Your task to perform on an android device: How much does a3 bedroom apartment rent for in Portland? Image 0: 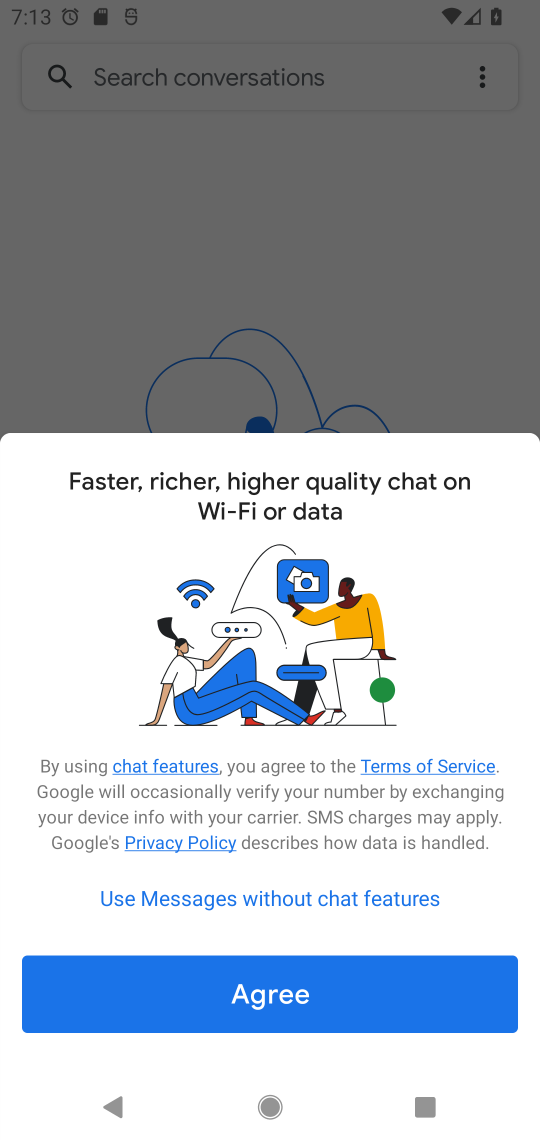
Step 0: press home button
Your task to perform on an android device: How much does a3 bedroom apartment rent for in Portland? Image 1: 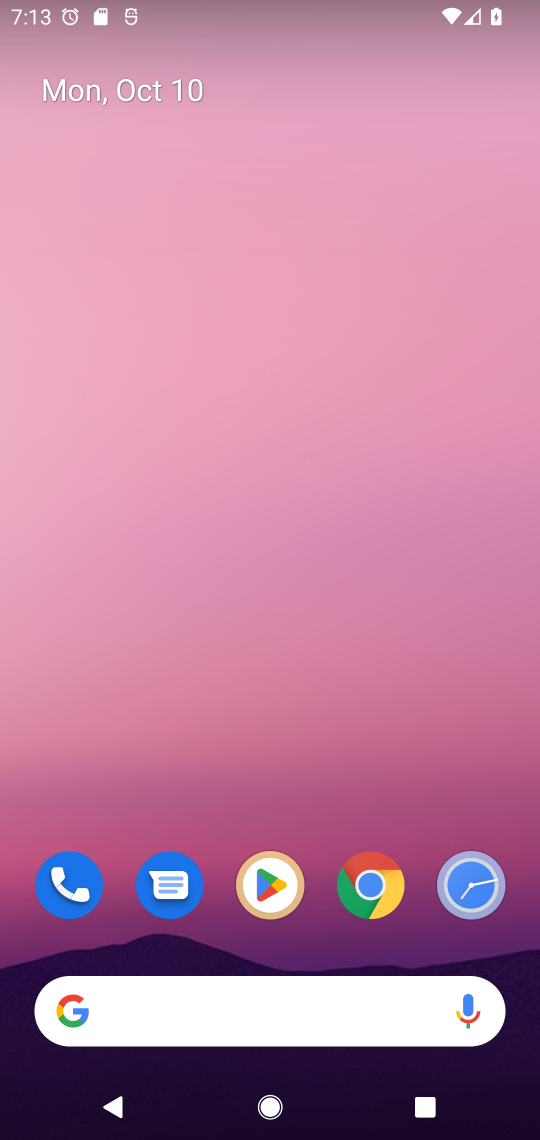
Step 1: click (376, 897)
Your task to perform on an android device: How much does a3 bedroom apartment rent for in Portland? Image 2: 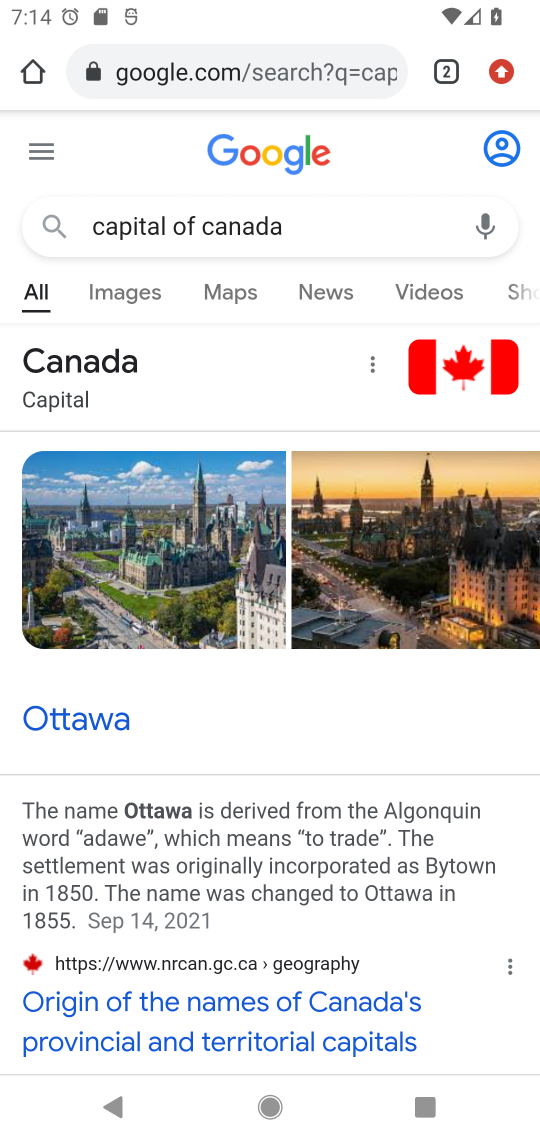
Step 2: click (154, 70)
Your task to perform on an android device: How much does a3 bedroom apartment rent for in Portland? Image 3: 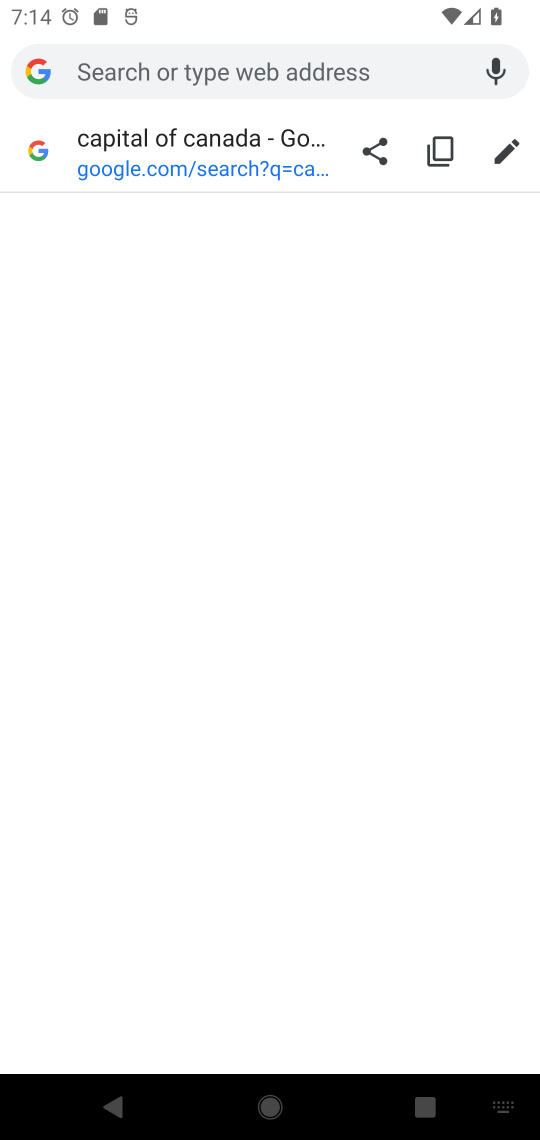
Step 3: type "3 bedroom apartment rent for in Portland"
Your task to perform on an android device: How much does a3 bedroom apartment rent for in Portland? Image 4: 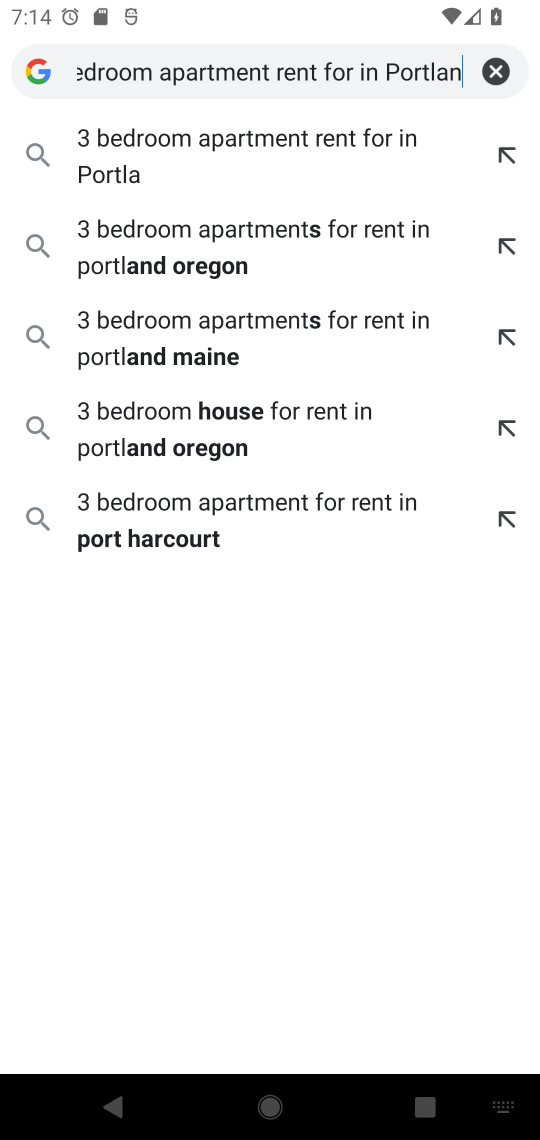
Step 4: type ""
Your task to perform on an android device: How much does a3 bedroom apartment rent for in Portland? Image 5: 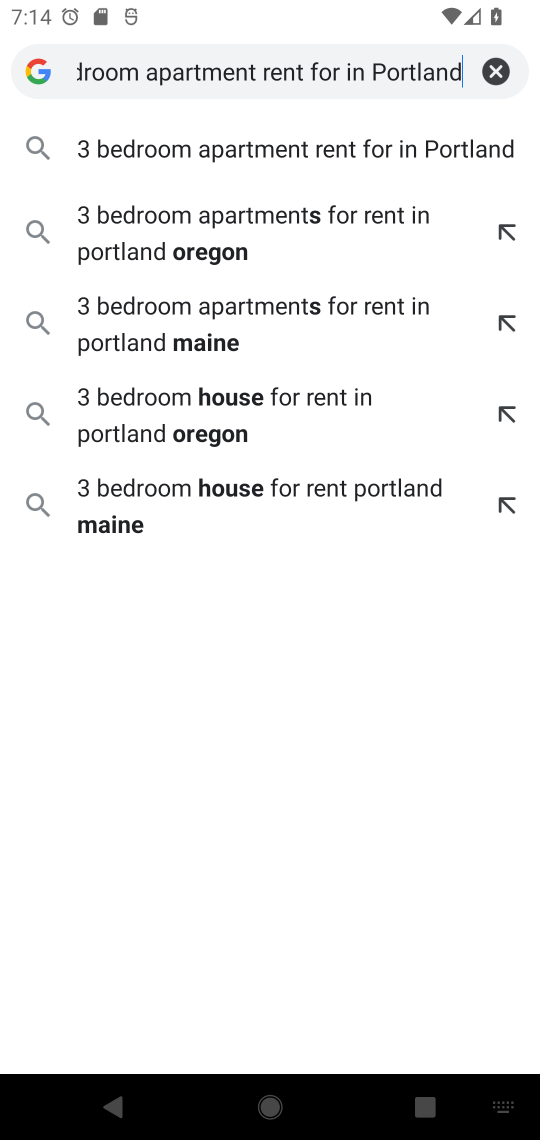
Step 5: click (237, 141)
Your task to perform on an android device: How much does a3 bedroom apartment rent for in Portland? Image 6: 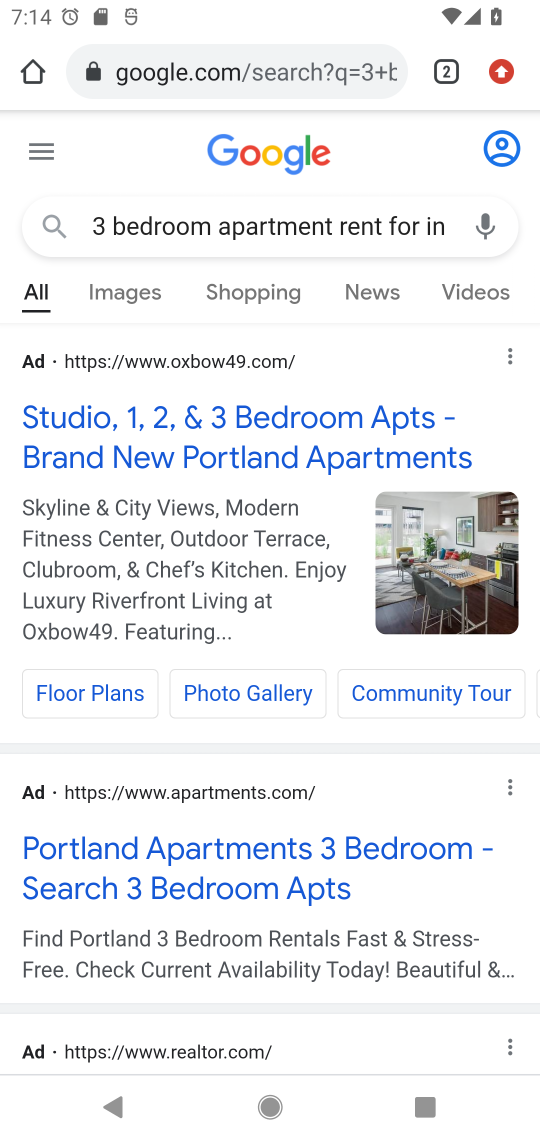
Step 6: click (203, 850)
Your task to perform on an android device: How much does a3 bedroom apartment rent for in Portland? Image 7: 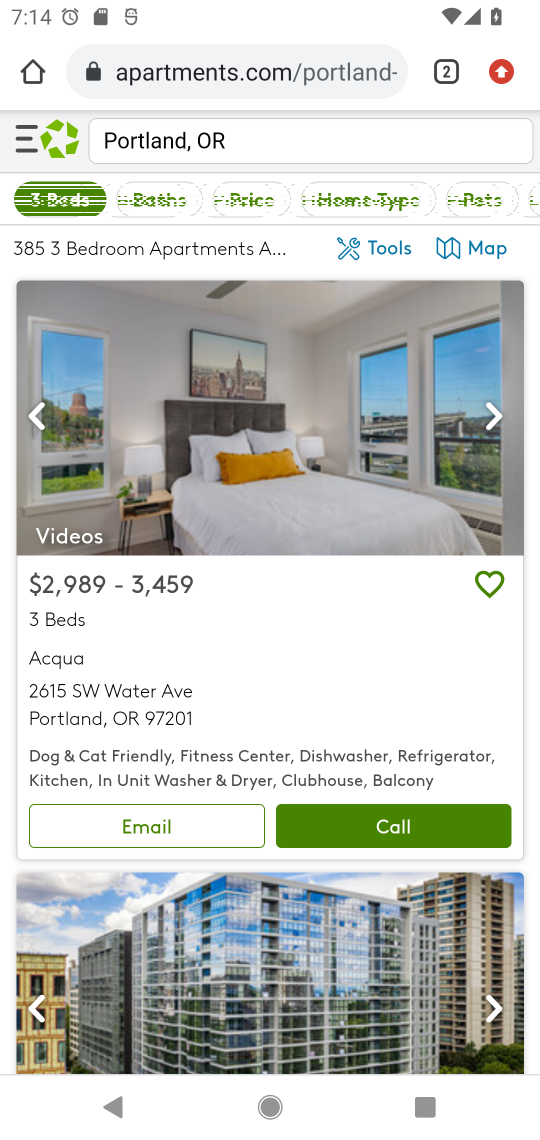
Step 7: task complete